Your task to perform on an android device: change timer sound Image 0: 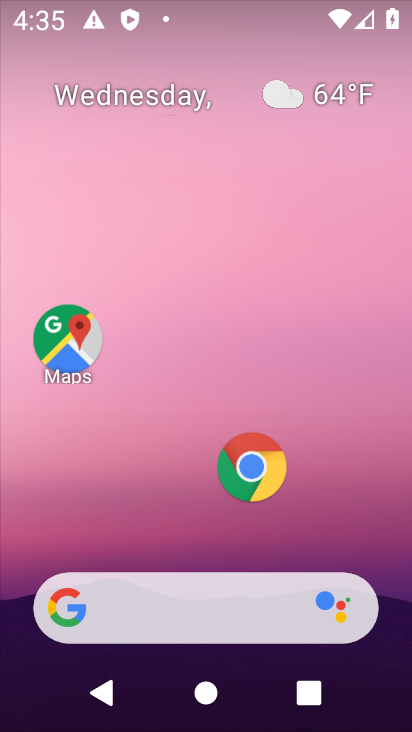
Step 0: drag from (167, 462) to (219, 155)
Your task to perform on an android device: change timer sound Image 1: 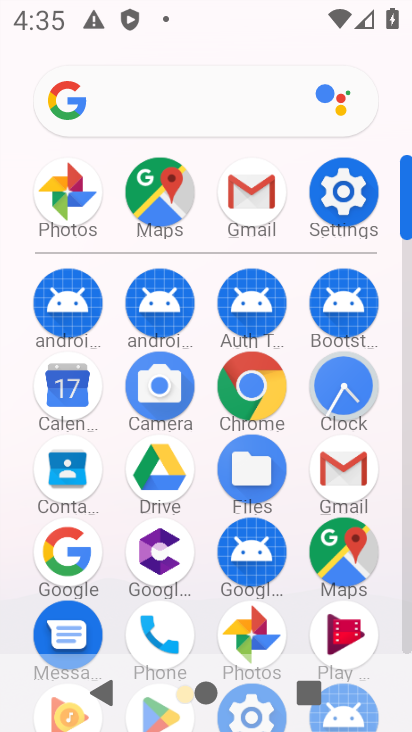
Step 1: click (343, 191)
Your task to perform on an android device: change timer sound Image 2: 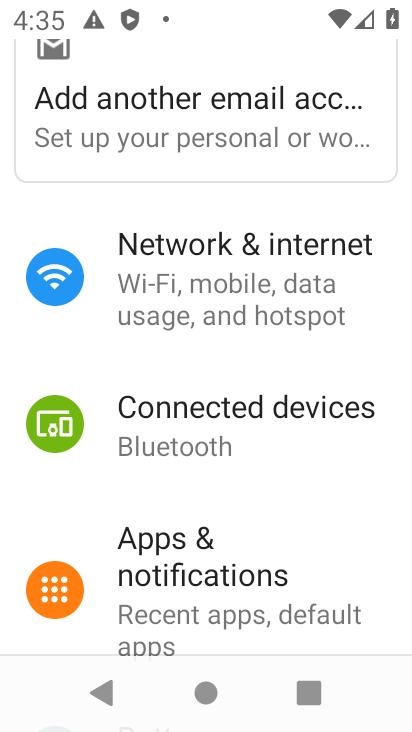
Step 2: drag from (210, 431) to (235, 78)
Your task to perform on an android device: change timer sound Image 3: 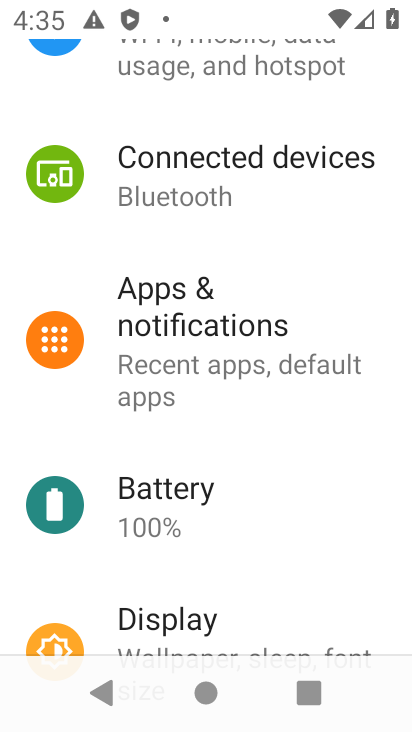
Step 3: drag from (158, 518) to (200, 301)
Your task to perform on an android device: change timer sound Image 4: 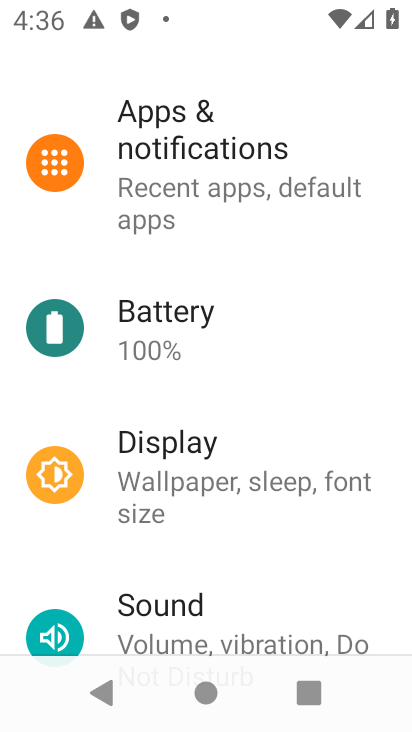
Step 4: click (115, 633)
Your task to perform on an android device: change timer sound Image 5: 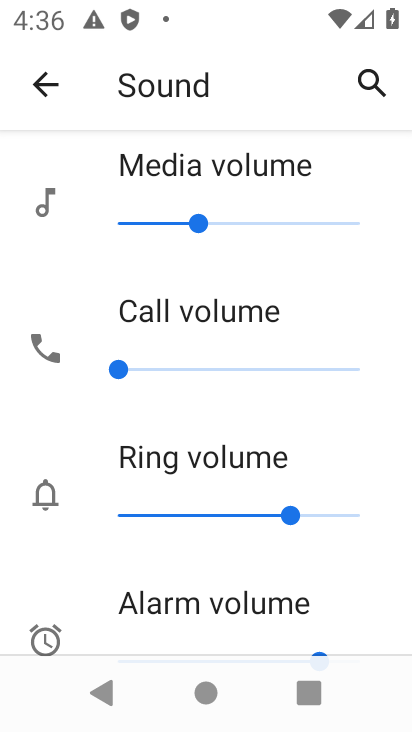
Step 5: task complete